Your task to perform on an android device: Go to display settings Image 0: 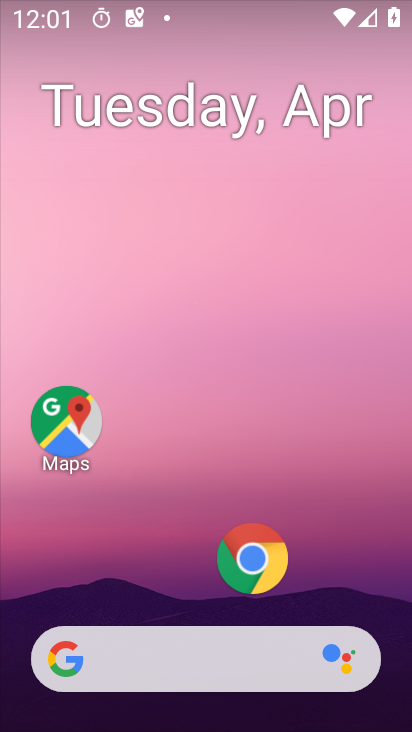
Step 0: drag from (202, 608) to (215, 151)
Your task to perform on an android device: Go to display settings Image 1: 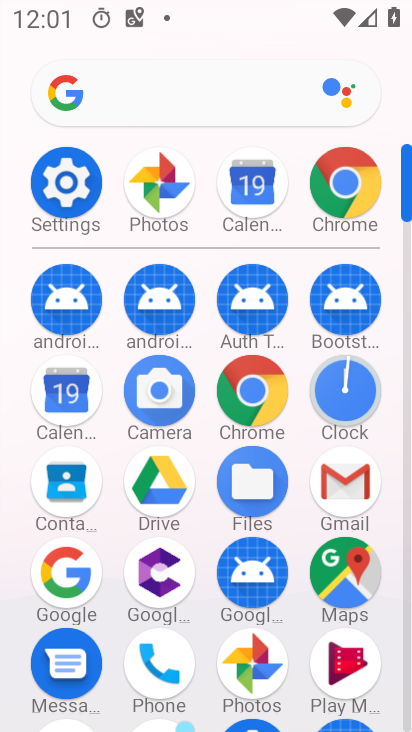
Step 1: drag from (287, 606) to (332, 283)
Your task to perform on an android device: Go to display settings Image 2: 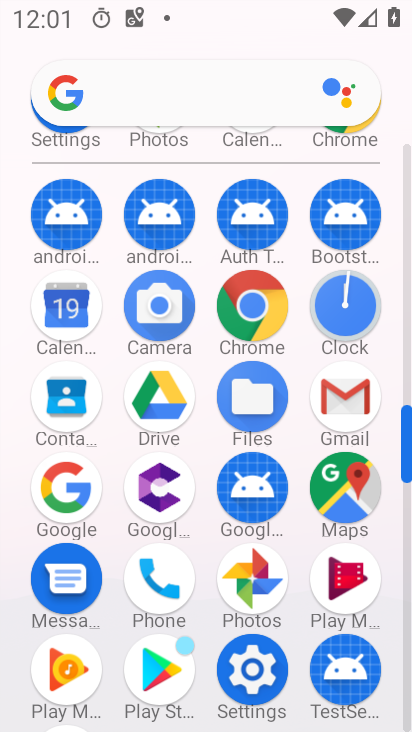
Step 2: click (248, 692)
Your task to perform on an android device: Go to display settings Image 3: 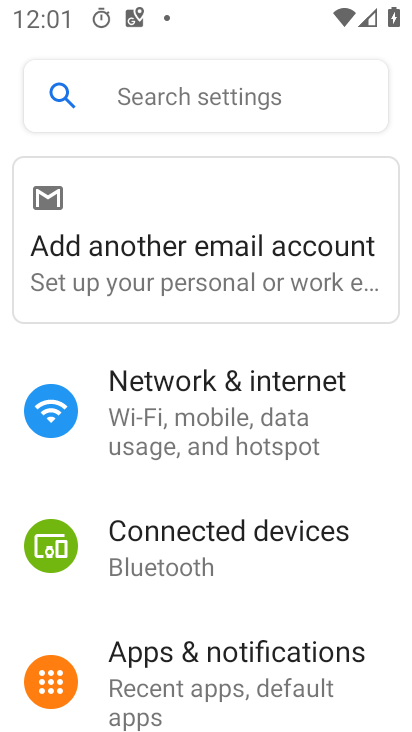
Step 3: drag from (207, 626) to (216, 239)
Your task to perform on an android device: Go to display settings Image 4: 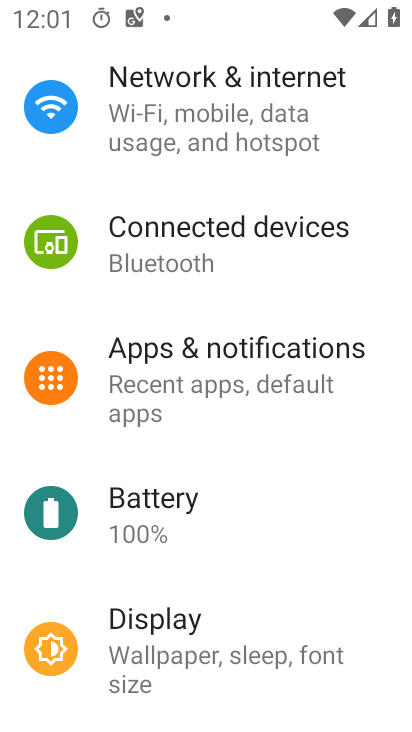
Step 4: click (181, 642)
Your task to perform on an android device: Go to display settings Image 5: 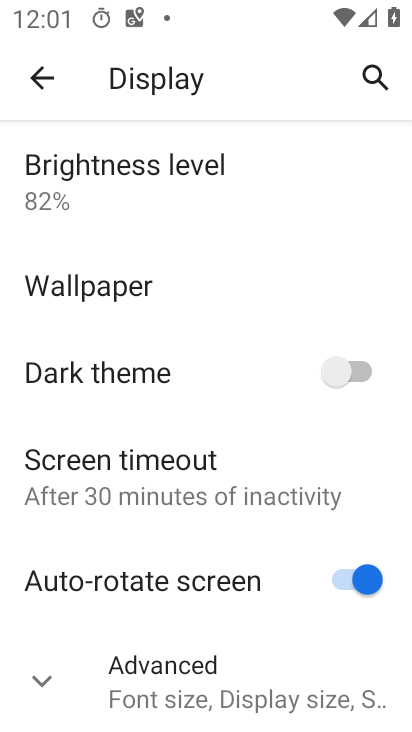
Step 5: task complete